Your task to perform on an android device: See recent photos Image 0: 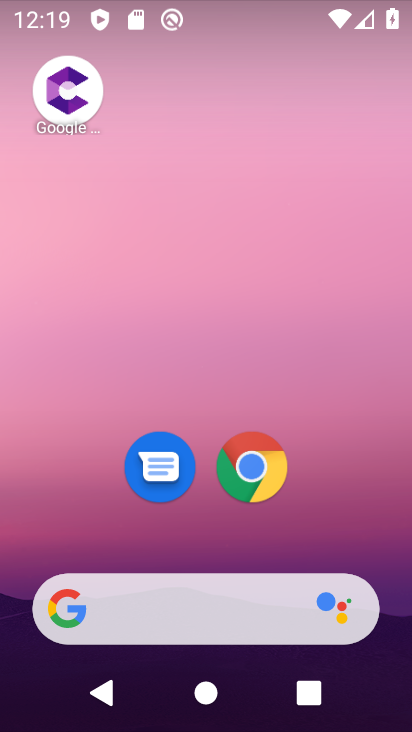
Step 0: drag from (337, 492) to (264, 77)
Your task to perform on an android device: See recent photos Image 1: 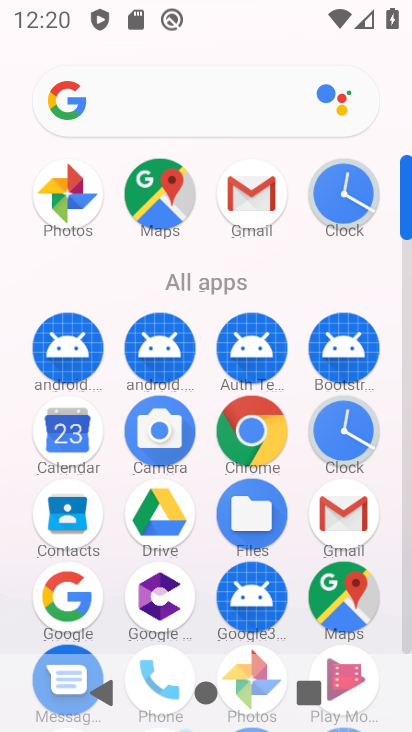
Step 1: drag from (328, 524) to (272, 263)
Your task to perform on an android device: See recent photos Image 2: 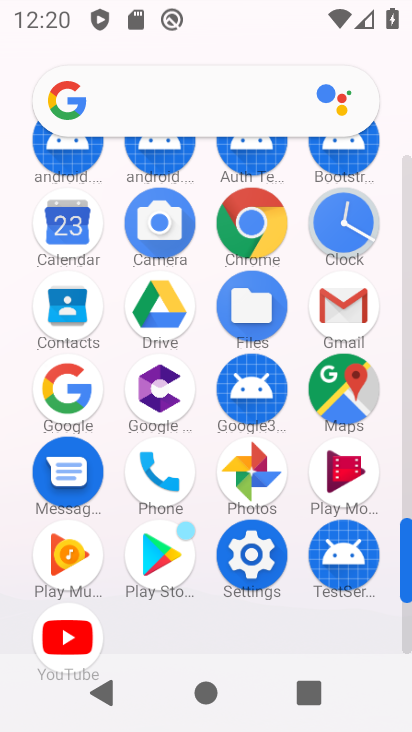
Step 2: click (245, 473)
Your task to perform on an android device: See recent photos Image 3: 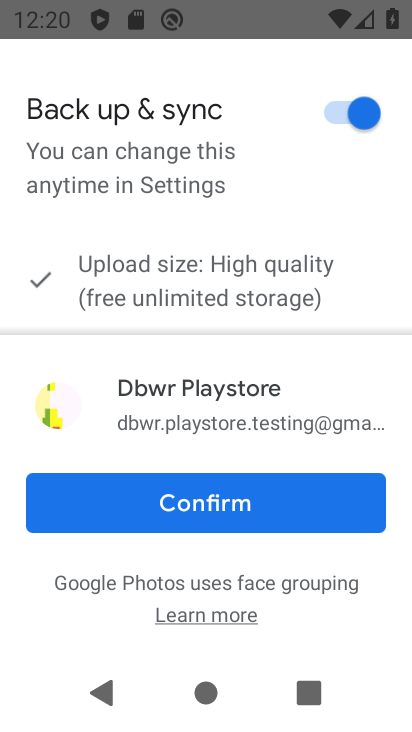
Step 3: click (128, 514)
Your task to perform on an android device: See recent photos Image 4: 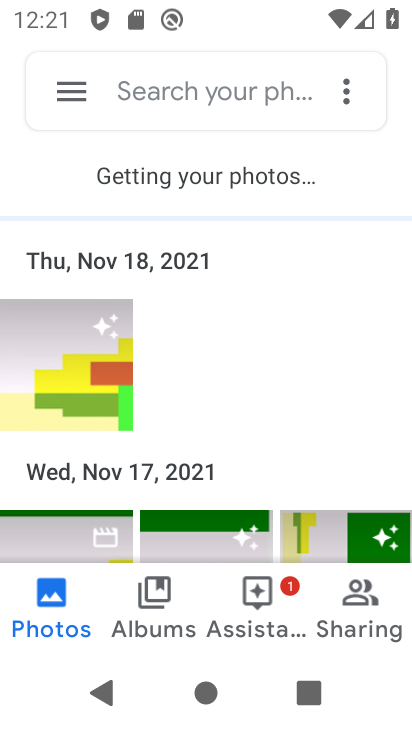
Step 4: task complete